Your task to perform on an android device: turn on bluetooth scan Image 0: 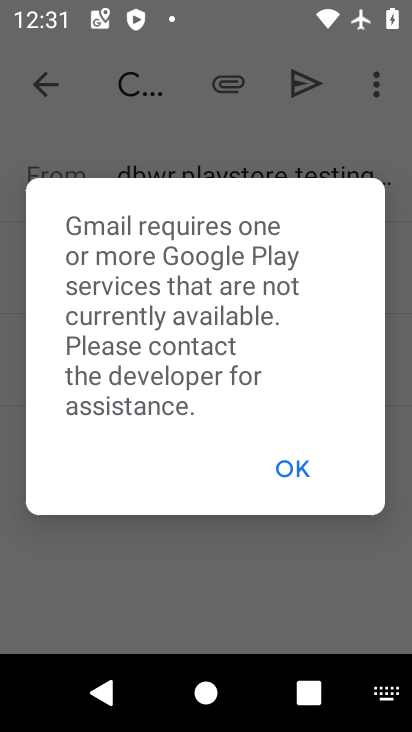
Step 0: click (302, 487)
Your task to perform on an android device: turn on bluetooth scan Image 1: 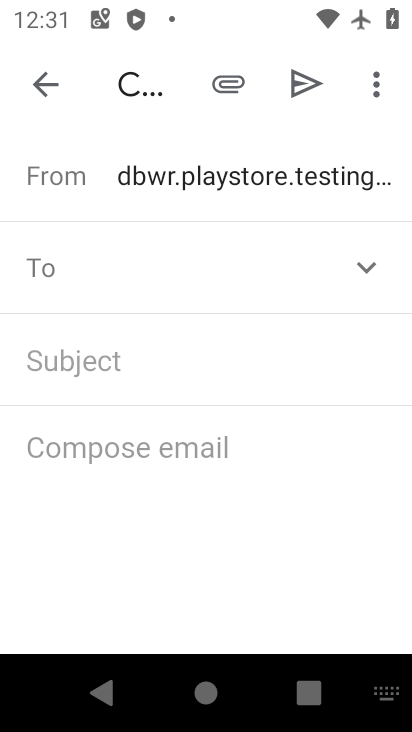
Step 1: press home button
Your task to perform on an android device: turn on bluetooth scan Image 2: 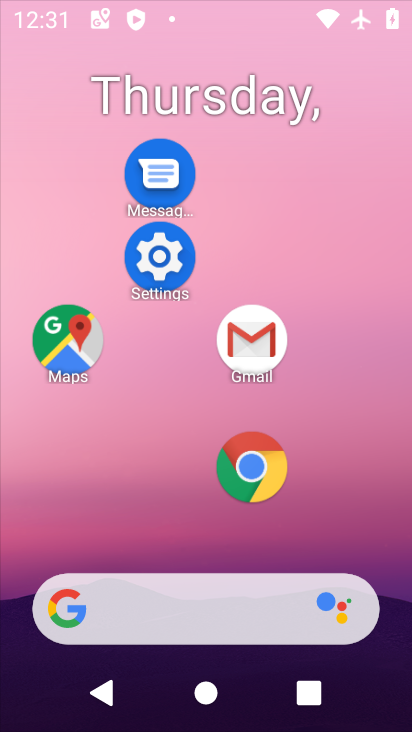
Step 2: drag from (159, 574) to (322, 5)
Your task to perform on an android device: turn on bluetooth scan Image 3: 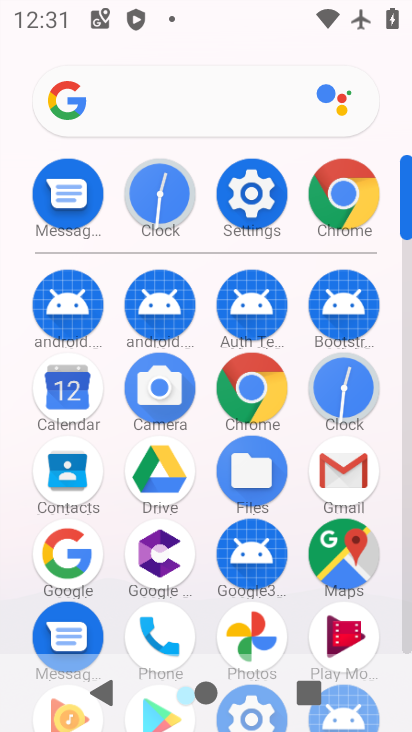
Step 3: click (254, 196)
Your task to perform on an android device: turn on bluetooth scan Image 4: 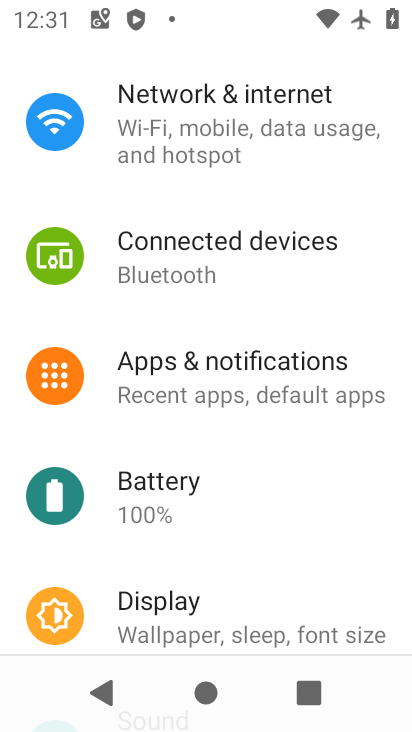
Step 4: drag from (301, 311) to (334, 727)
Your task to perform on an android device: turn on bluetooth scan Image 5: 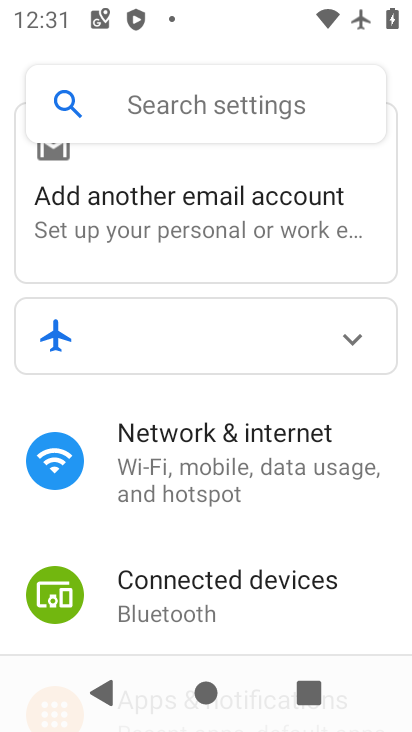
Step 5: drag from (226, 482) to (286, 93)
Your task to perform on an android device: turn on bluetooth scan Image 6: 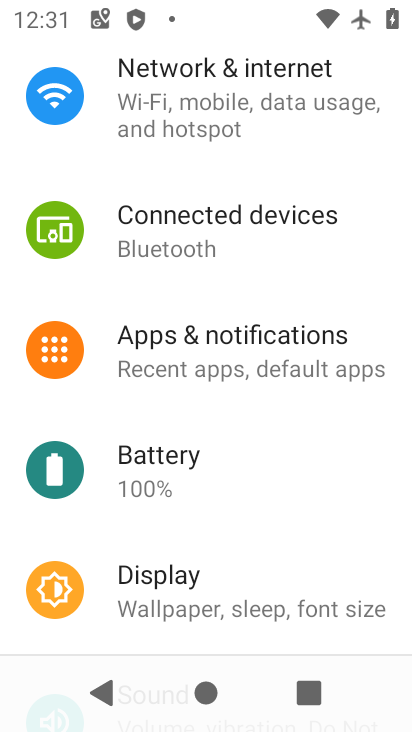
Step 6: drag from (190, 589) to (260, 200)
Your task to perform on an android device: turn on bluetooth scan Image 7: 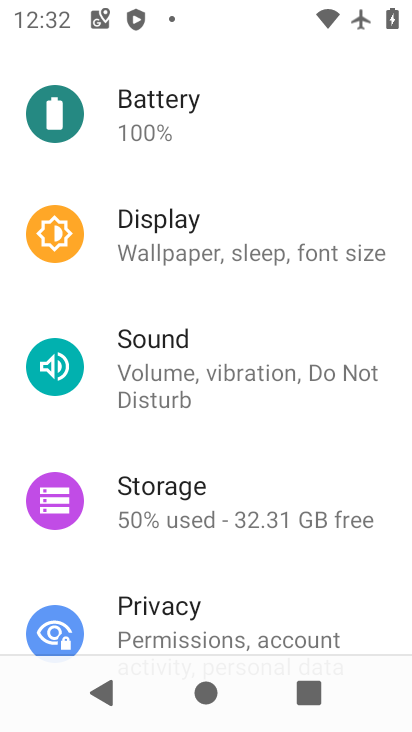
Step 7: drag from (229, 623) to (249, 213)
Your task to perform on an android device: turn on bluetooth scan Image 8: 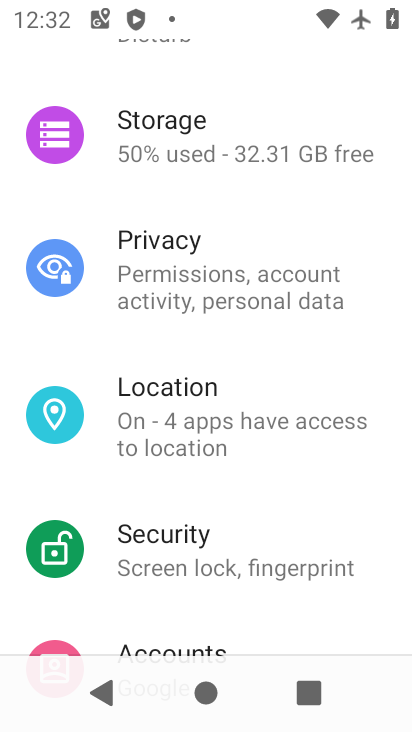
Step 8: click (224, 408)
Your task to perform on an android device: turn on bluetooth scan Image 9: 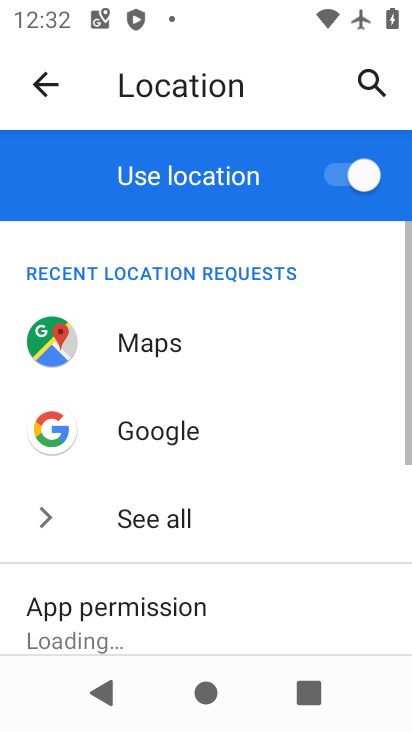
Step 9: drag from (224, 408) to (309, 81)
Your task to perform on an android device: turn on bluetooth scan Image 10: 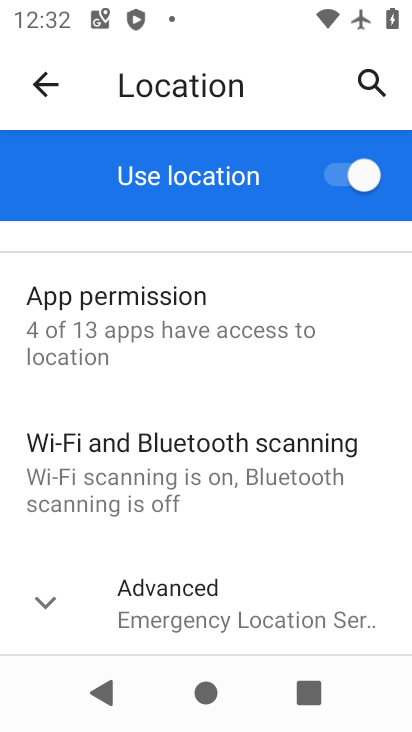
Step 10: click (188, 601)
Your task to perform on an android device: turn on bluetooth scan Image 11: 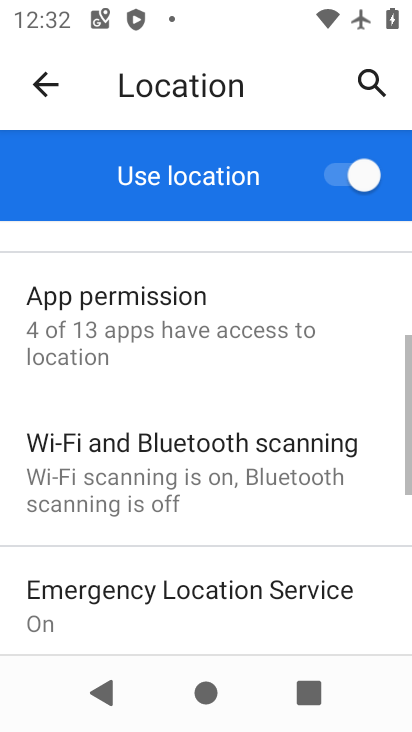
Step 11: drag from (187, 600) to (224, 214)
Your task to perform on an android device: turn on bluetooth scan Image 12: 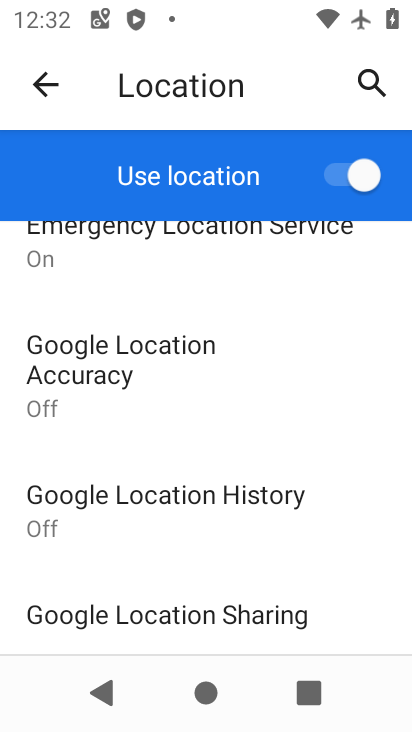
Step 12: drag from (232, 394) to (243, 730)
Your task to perform on an android device: turn on bluetooth scan Image 13: 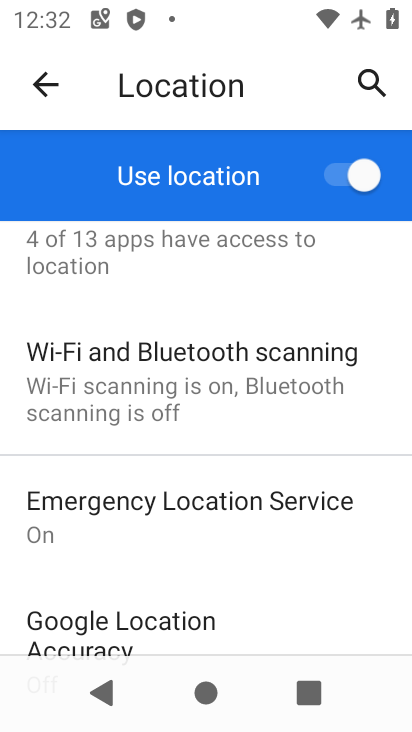
Step 13: click (229, 384)
Your task to perform on an android device: turn on bluetooth scan Image 14: 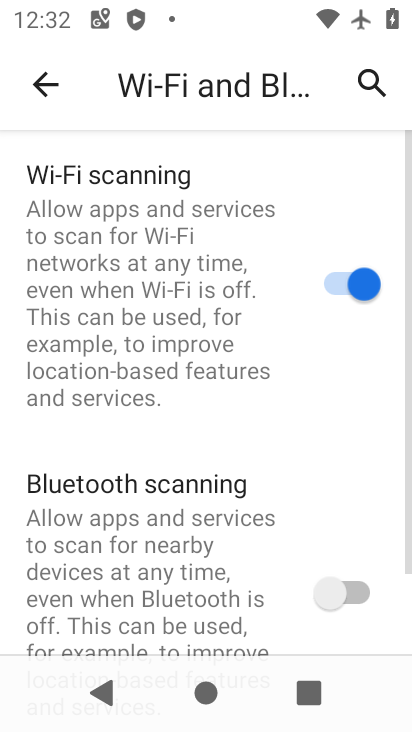
Step 14: click (323, 552)
Your task to perform on an android device: turn on bluetooth scan Image 15: 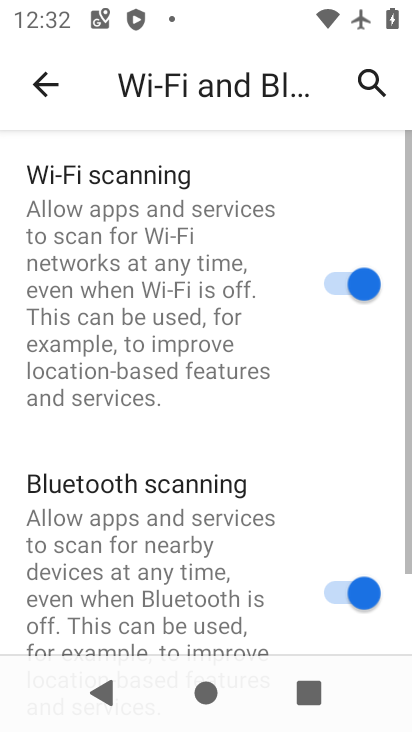
Step 15: task complete